Your task to perform on an android device: set default search engine in the chrome app Image 0: 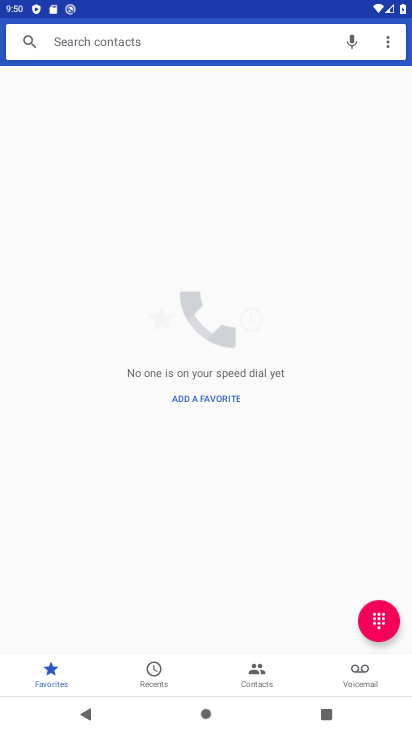
Step 0: press home button
Your task to perform on an android device: set default search engine in the chrome app Image 1: 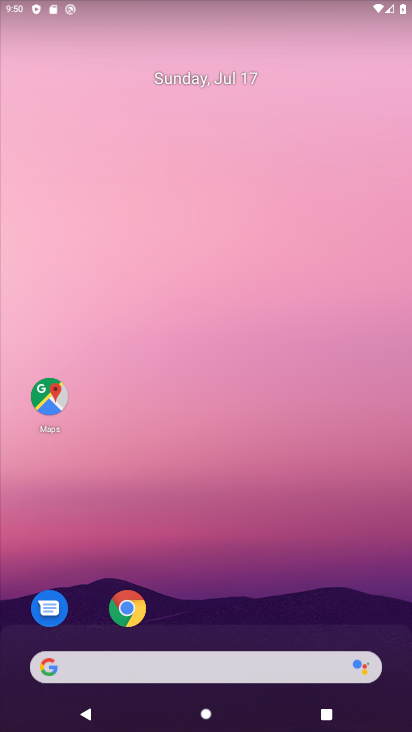
Step 1: click (344, 598)
Your task to perform on an android device: set default search engine in the chrome app Image 2: 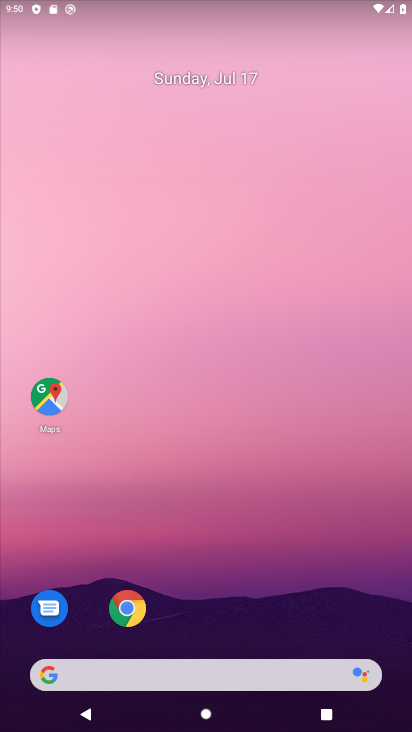
Step 2: click (129, 604)
Your task to perform on an android device: set default search engine in the chrome app Image 3: 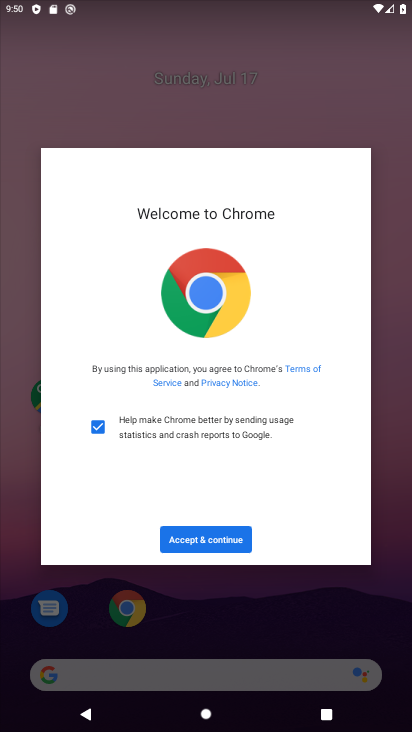
Step 3: click (227, 542)
Your task to perform on an android device: set default search engine in the chrome app Image 4: 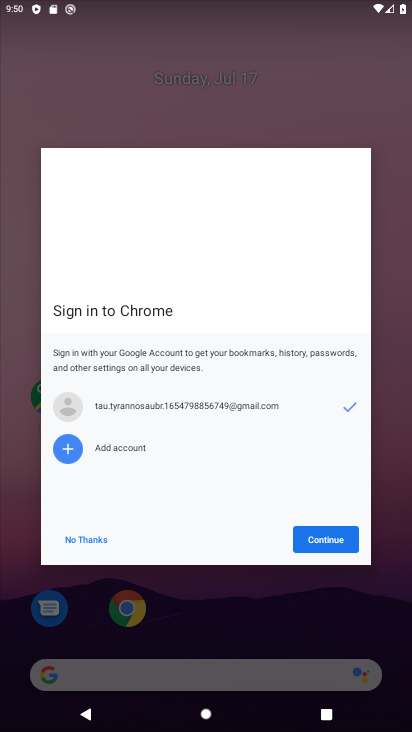
Step 4: click (300, 533)
Your task to perform on an android device: set default search engine in the chrome app Image 5: 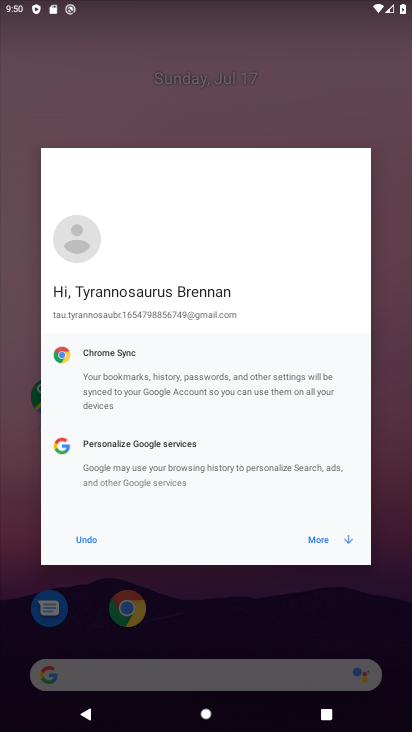
Step 5: click (300, 533)
Your task to perform on an android device: set default search engine in the chrome app Image 6: 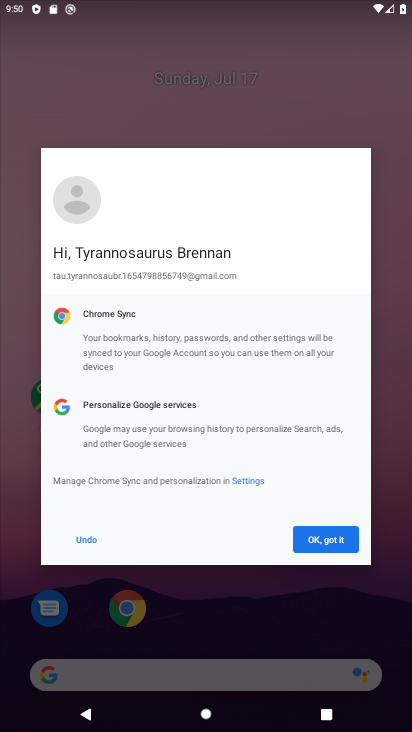
Step 6: click (300, 533)
Your task to perform on an android device: set default search engine in the chrome app Image 7: 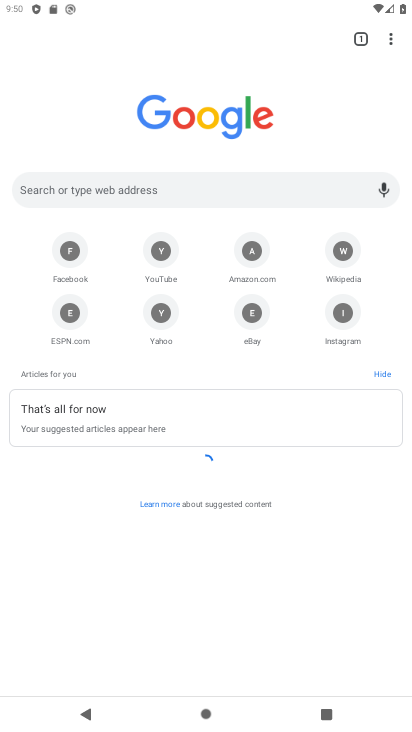
Step 7: click (392, 37)
Your task to perform on an android device: set default search engine in the chrome app Image 8: 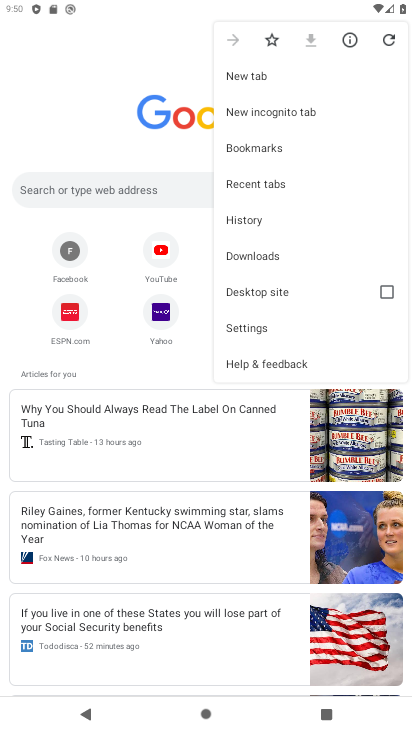
Step 8: click (260, 322)
Your task to perform on an android device: set default search engine in the chrome app Image 9: 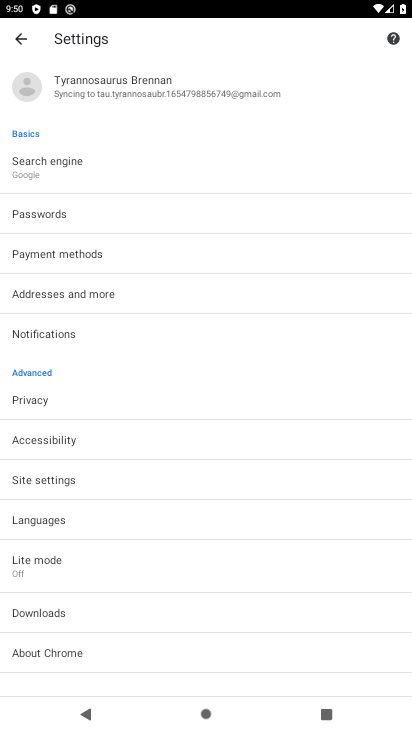
Step 9: click (23, 166)
Your task to perform on an android device: set default search engine in the chrome app Image 10: 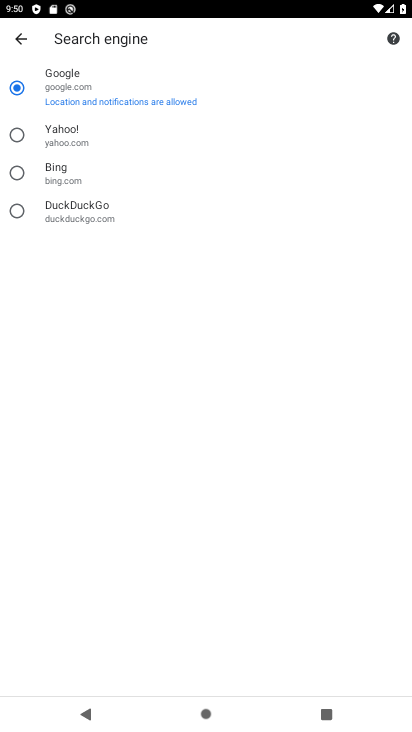
Step 10: click (17, 175)
Your task to perform on an android device: set default search engine in the chrome app Image 11: 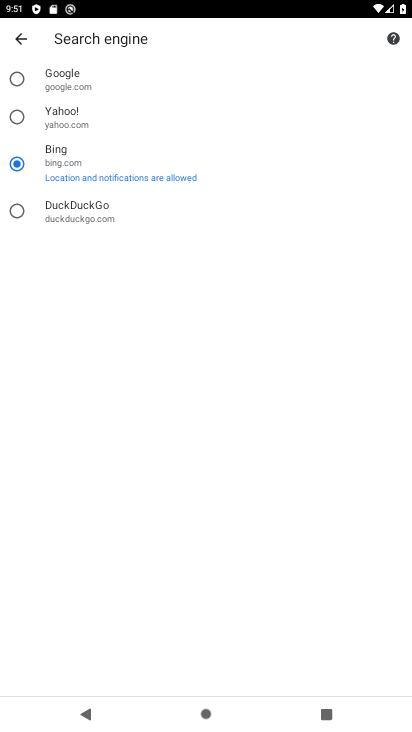
Step 11: task complete